Your task to perform on an android device: Open Wikipedia Image 0: 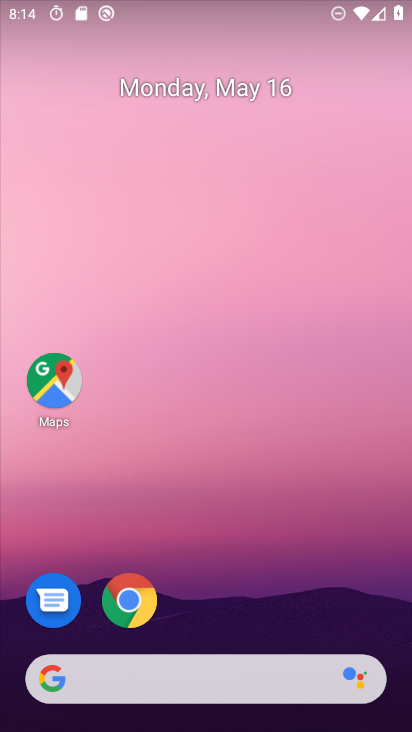
Step 0: click (126, 597)
Your task to perform on an android device: Open Wikipedia Image 1: 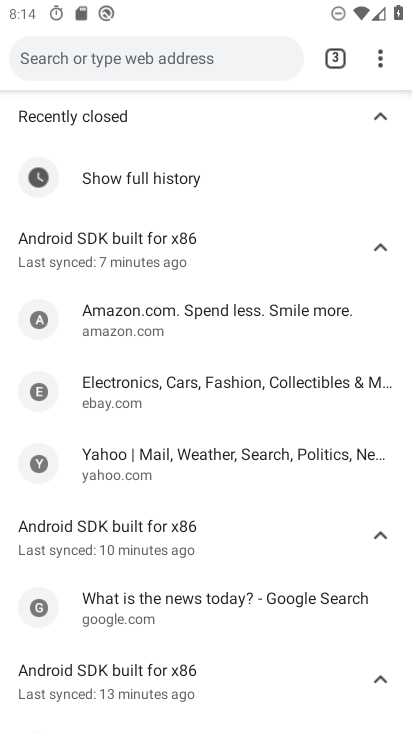
Step 1: drag from (380, 65) to (284, 113)
Your task to perform on an android device: Open Wikipedia Image 2: 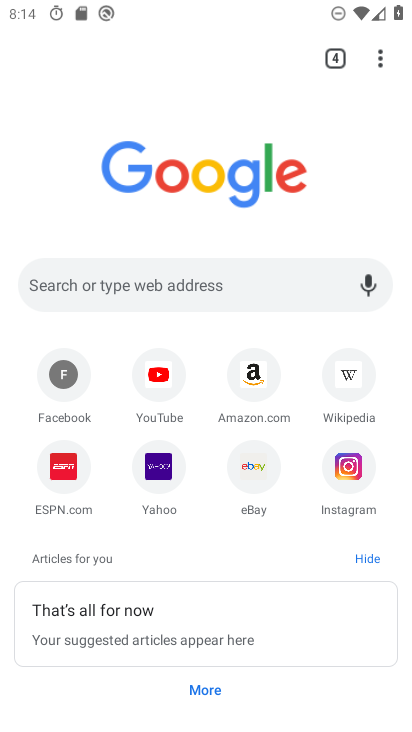
Step 2: click (341, 380)
Your task to perform on an android device: Open Wikipedia Image 3: 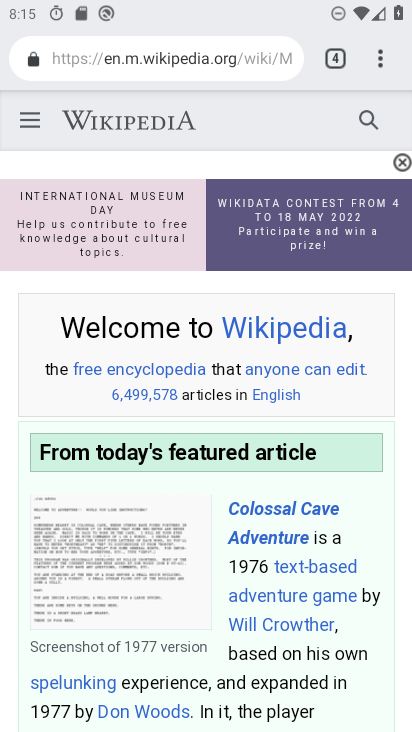
Step 3: task complete